Your task to perform on an android device: Open the map Image 0: 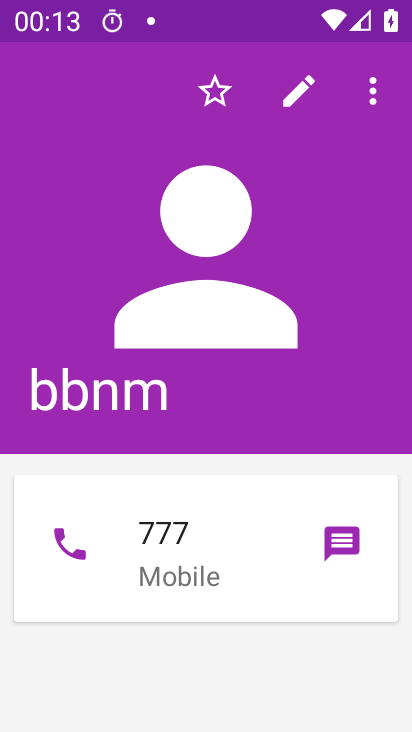
Step 0: press home button
Your task to perform on an android device: Open the map Image 1: 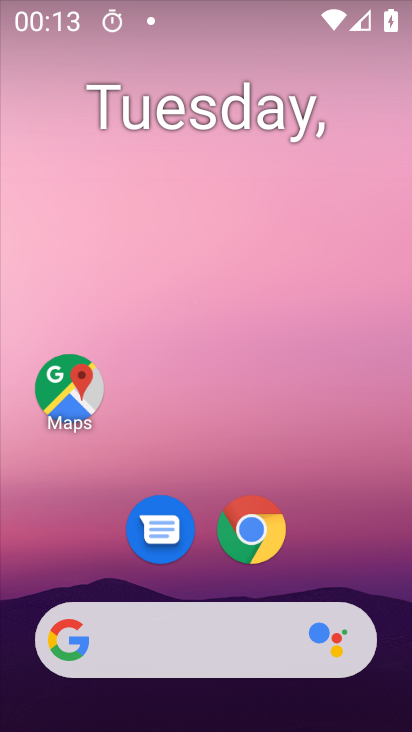
Step 1: click (76, 419)
Your task to perform on an android device: Open the map Image 2: 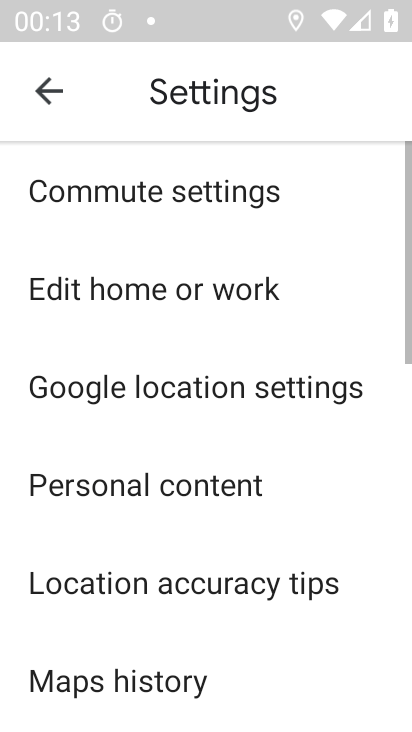
Step 2: task complete